Your task to perform on an android device: Open Wikipedia Image 0: 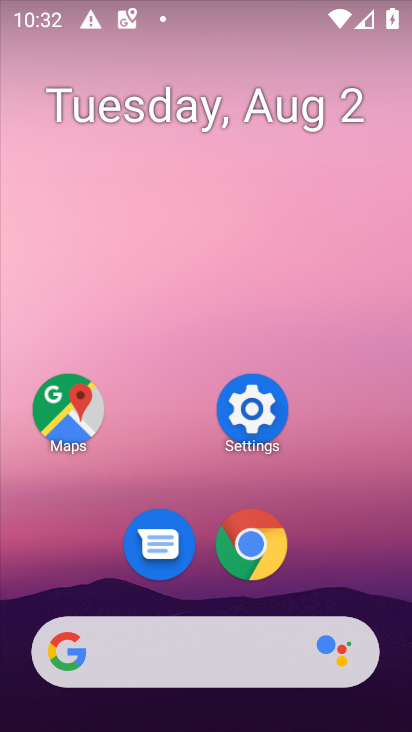
Step 0: press home button
Your task to perform on an android device: Open Wikipedia Image 1: 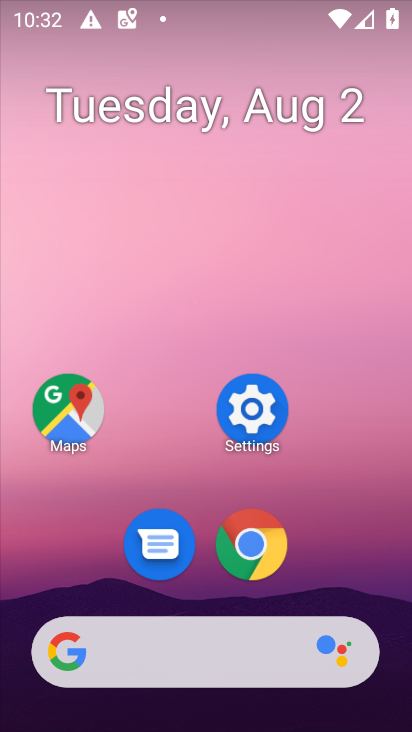
Step 1: click (259, 543)
Your task to perform on an android device: Open Wikipedia Image 2: 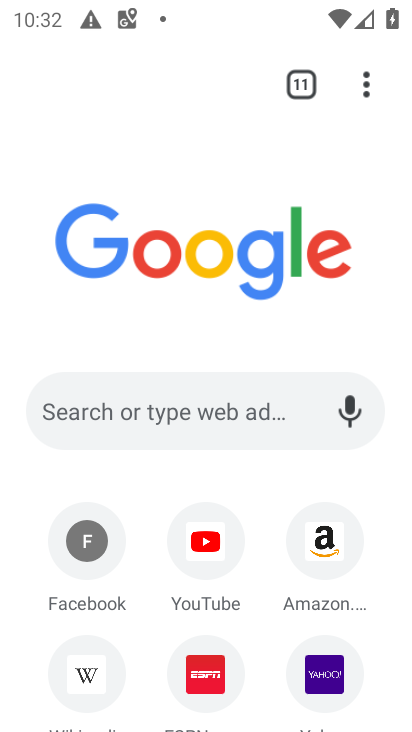
Step 2: drag from (167, 528) to (251, 238)
Your task to perform on an android device: Open Wikipedia Image 3: 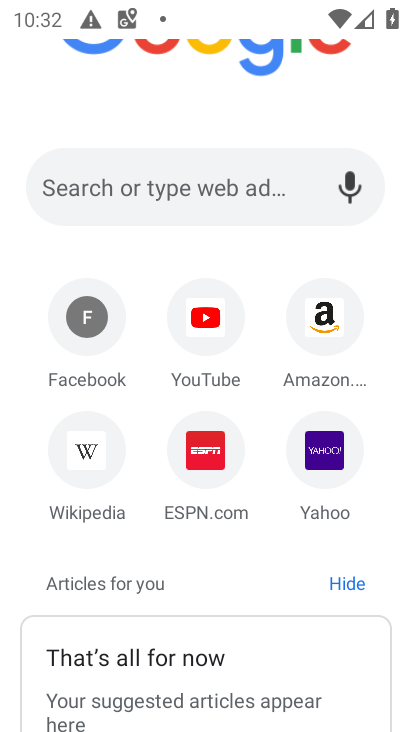
Step 3: click (92, 457)
Your task to perform on an android device: Open Wikipedia Image 4: 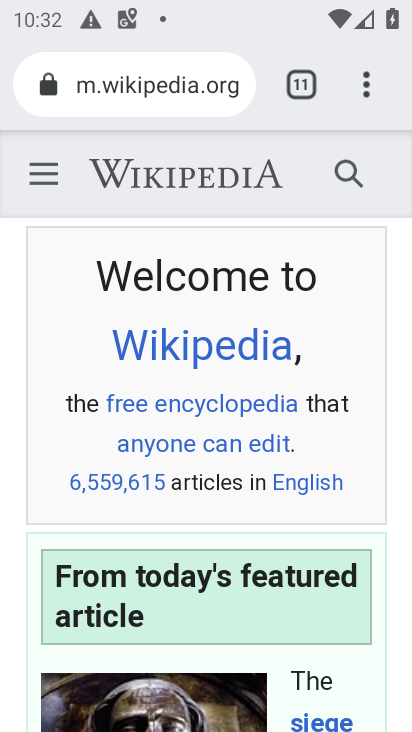
Step 4: task complete